Your task to perform on an android device: open app "Pinterest" (install if not already installed) and enter user name: "Switzerland@yahoo.com" and password: "arithmetics" Image 0: 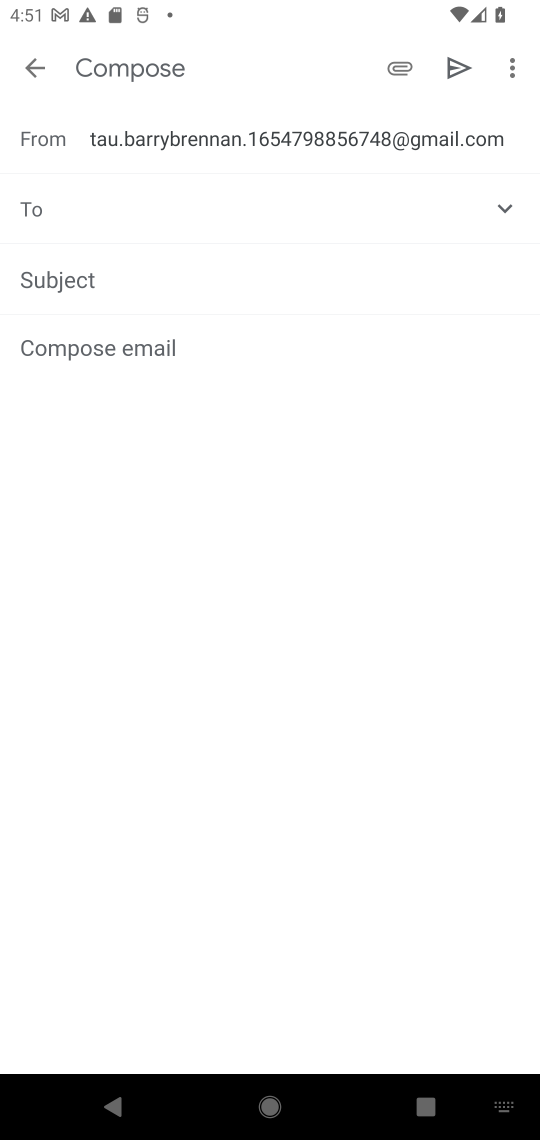
Step 0: press home button
Your task to perform on an android device: open app "Pinterest" (install if not already installed) and enter user name: "Switzerland@yahoo.com" and password: "arithmetics" Image 1: 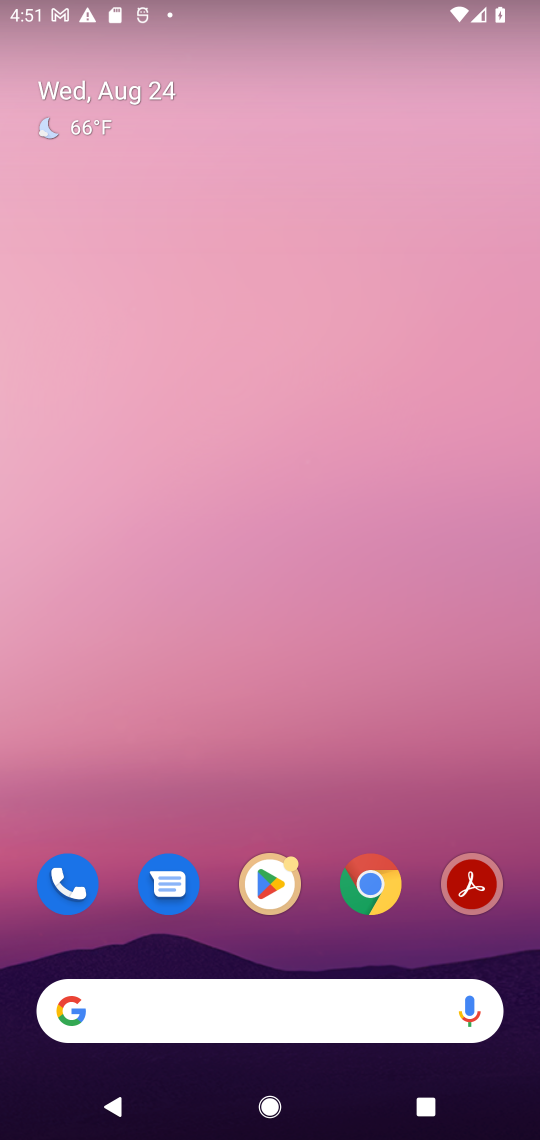
Step 1: click (269, 878)
Your task to perform on an android device: open app "Pinterest" (install if not already installed) and enter user name: "Switzerland@yahoo.com" and password: "arithmetics" Image 2: 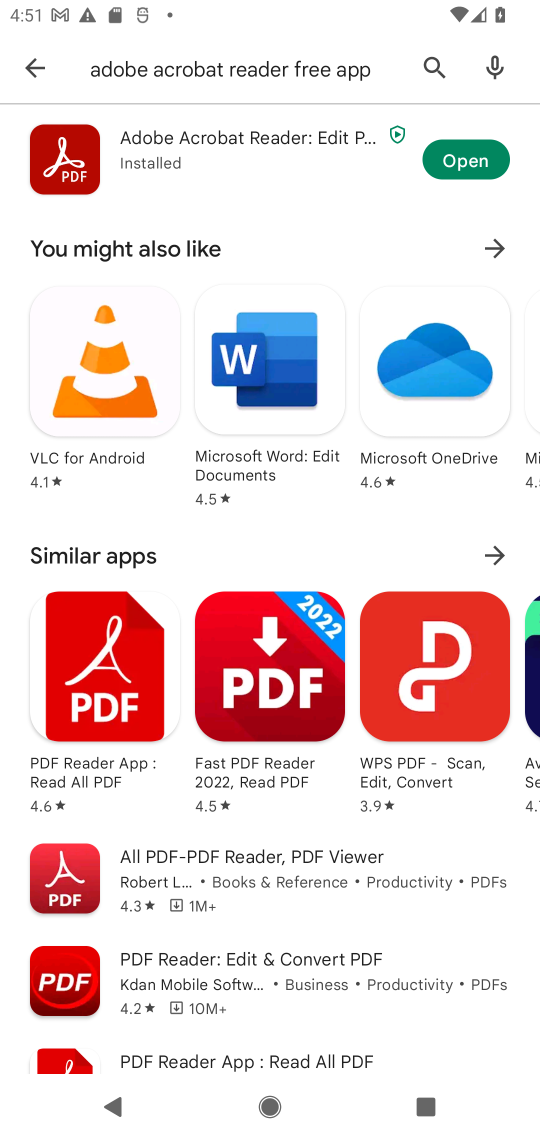
Step 2: click (28, 59)
Your task to perform on an android device: open app "Pinterest" (install if not already installed) and enter user name: "Switzerland@yahoo.com" and password: "arithmetics" Image 3: 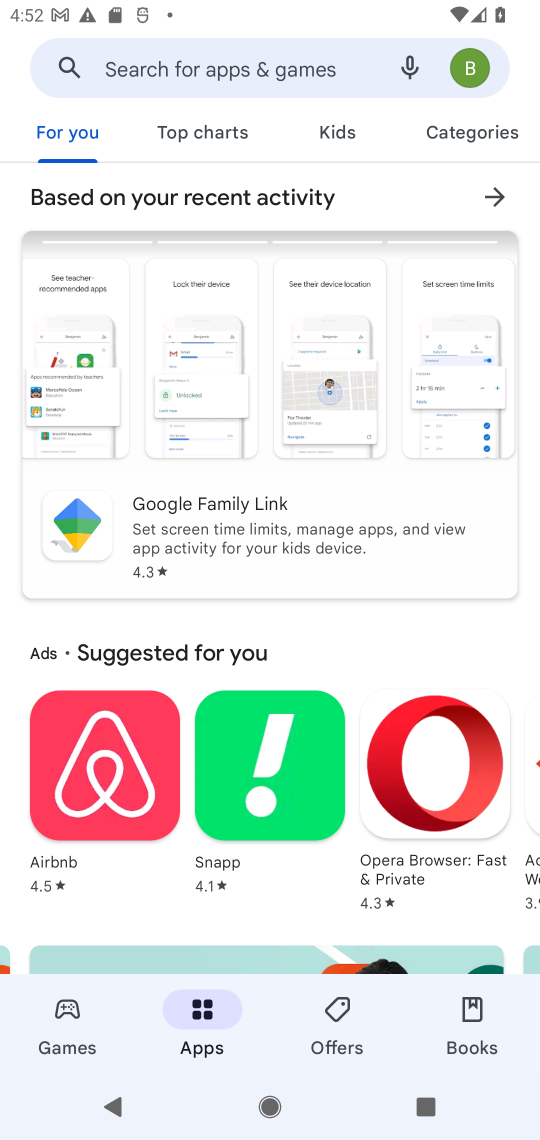
Step 3: click (232, 55)
Your task to perform on an android device: open app "Pinterest" (install if not already installed) and enter user name: "Switzerland@yahoo.com" and password: "arithmetics" Image 4: 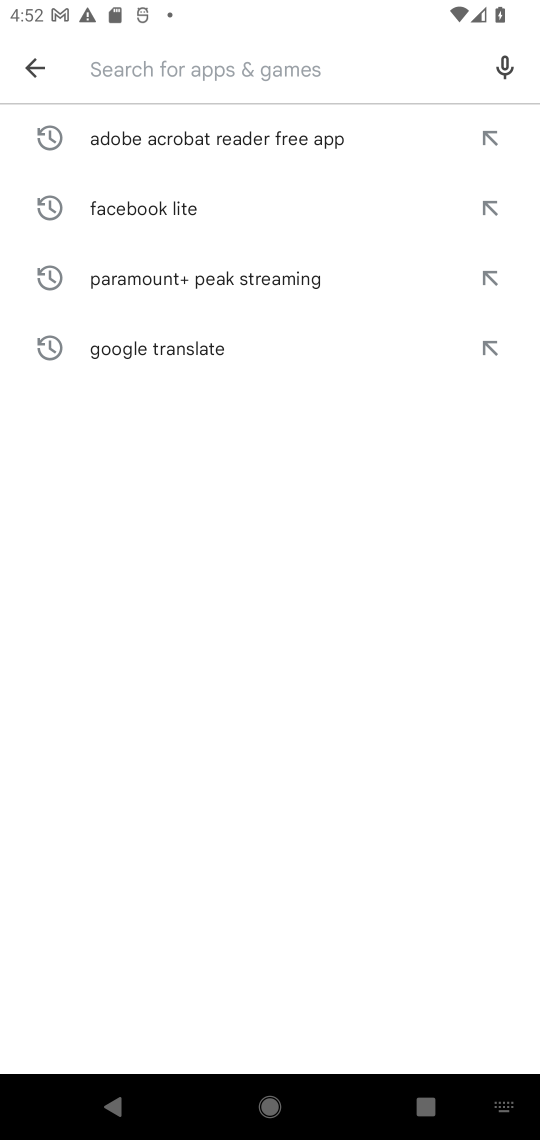
Step 4: type "Pinterest"
Your task to perform on an android device: open app "Pinterest" (install if not already installed) and enter user name: "Switzerland@yahoo.com" and password: "arithmetics" Image 5: 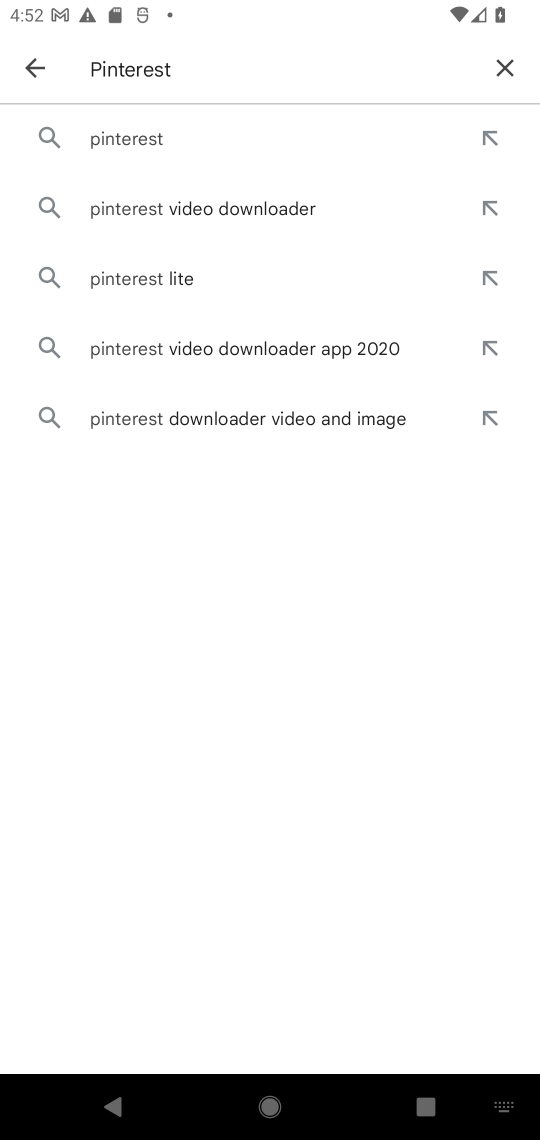
Step 5: click (117, 139)
Your task to perform on an android device: open app "Pinterest" (install if not already installed) and enter user name: "Switzerland@yahoo.com" and password: "arithmetics" Image 6: 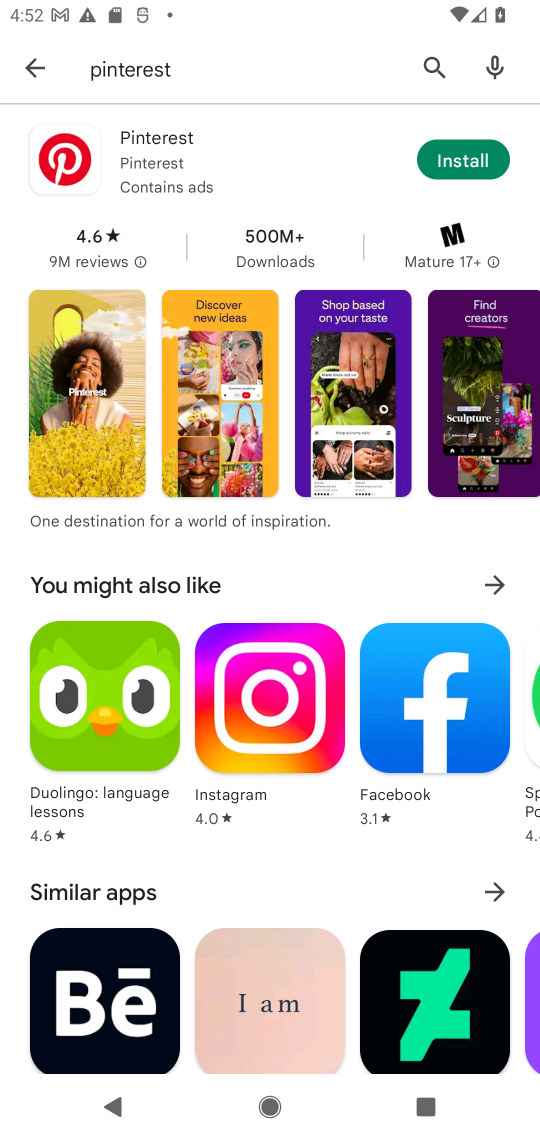
Step 6: click (467, 154)
Your task to perform on an android device: open app "Pinterest" (install if not already installed) and enter user name: "Switzerland@yahoo.com" and password: "arithmetics" Image 7: 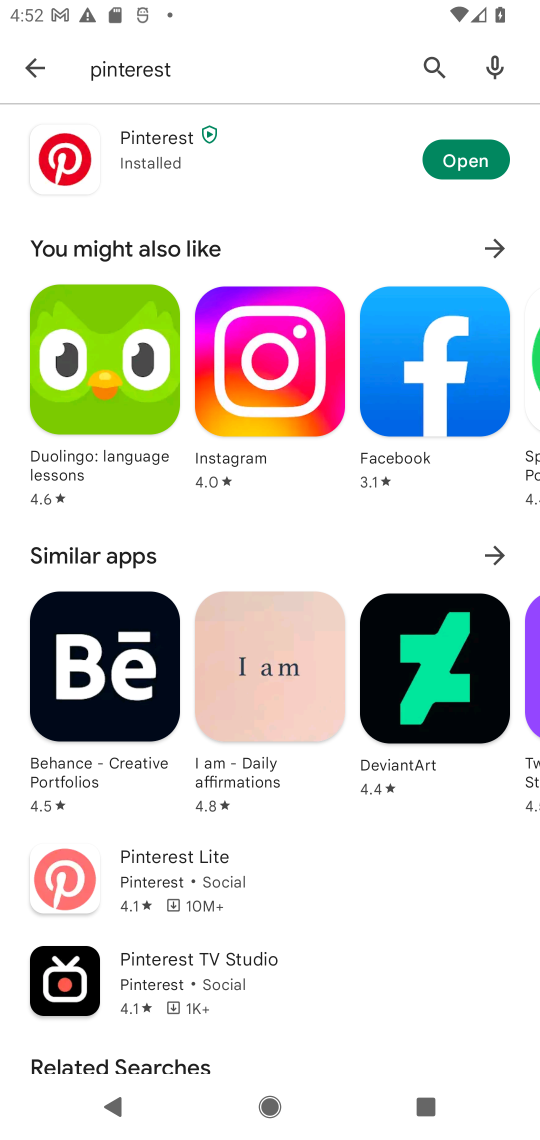
Step 7: click (467, 154)
Your task to perform on an android device: open app "Pinterest" (install if not already installed) and enter user name: "Switzerland@yahoo.com" and password: "arithmetics" Image 8: 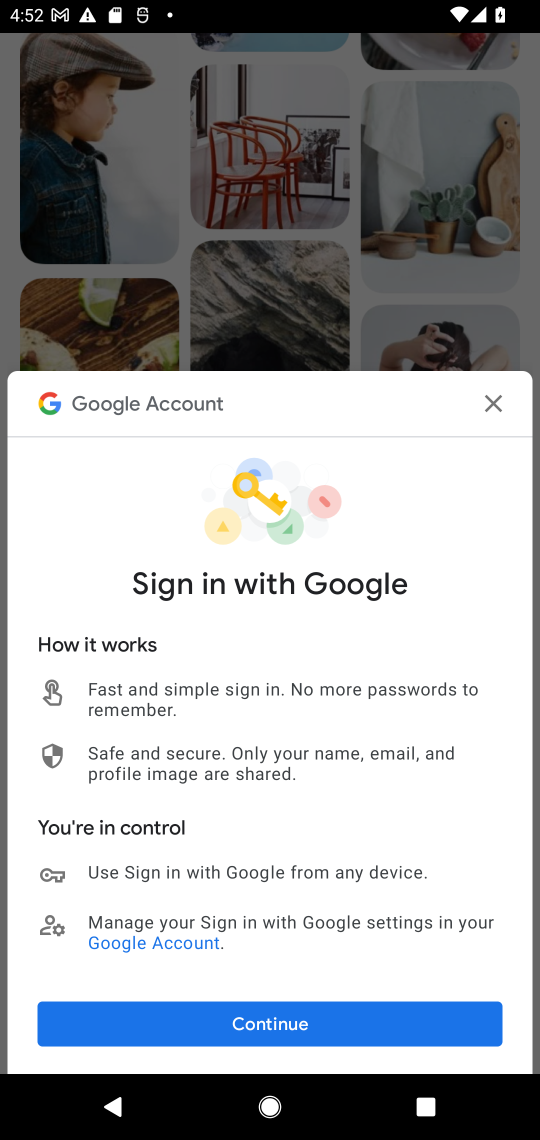
Step 8: task complete